Your task to perform on an android device: turn on improve location accuracy Image 0: 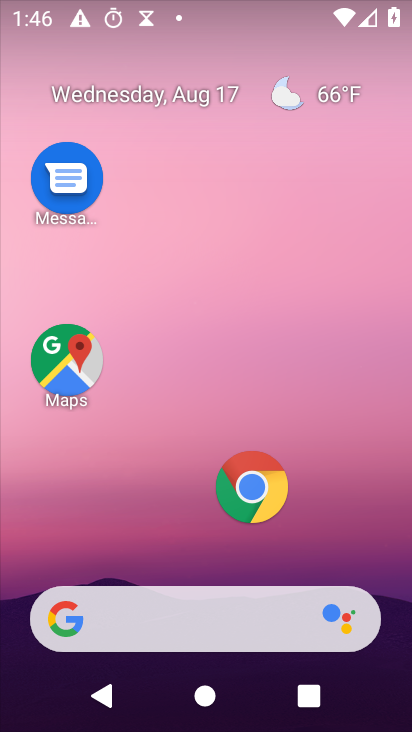
Step 0: press home button
Your task to perform on an android device: turn on improve location accuracy Image 1: 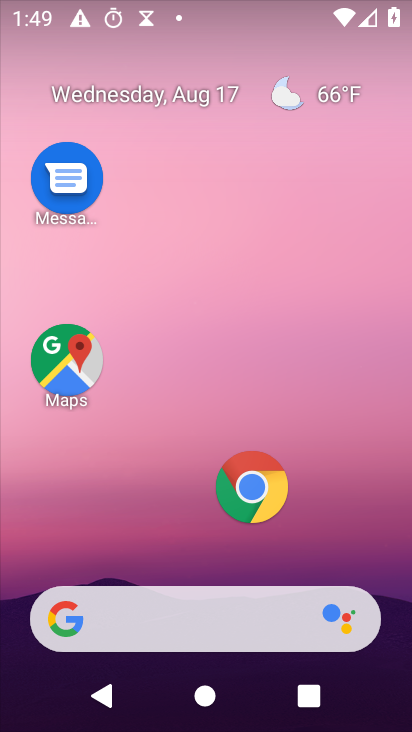
Step 1: drag from (206, 346) to (205, 39)
Your task to perform on an android device: turn on improve location accuracy Image 2: 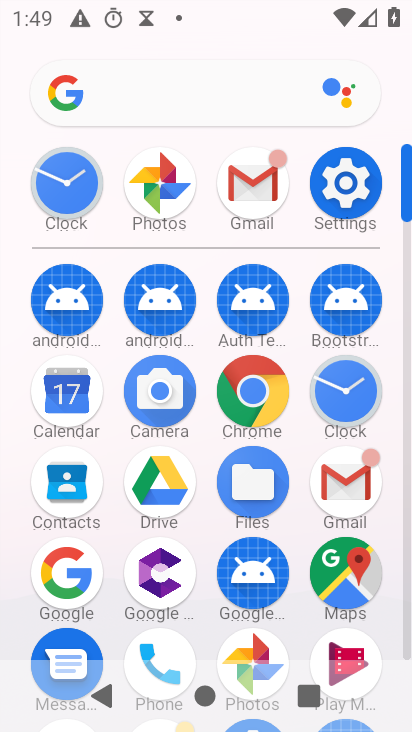
Step 2: click (339, 188)
Your task to perform on an android device: turn on improve location accuracy Image 3: 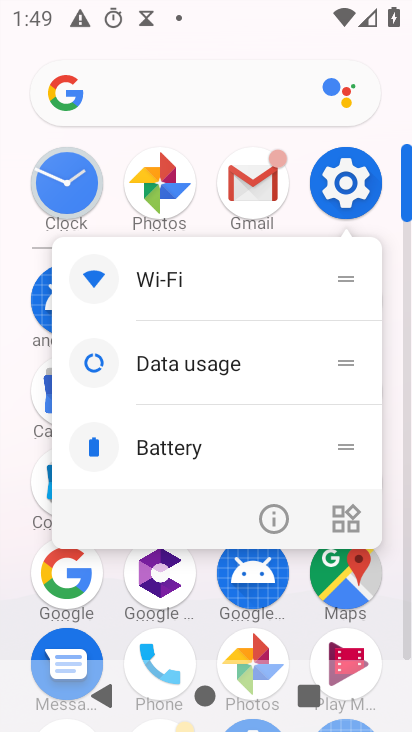
Step 3: click (358, 179)
Your task to perform on an android device: turn on improve location accuracy Image 4: 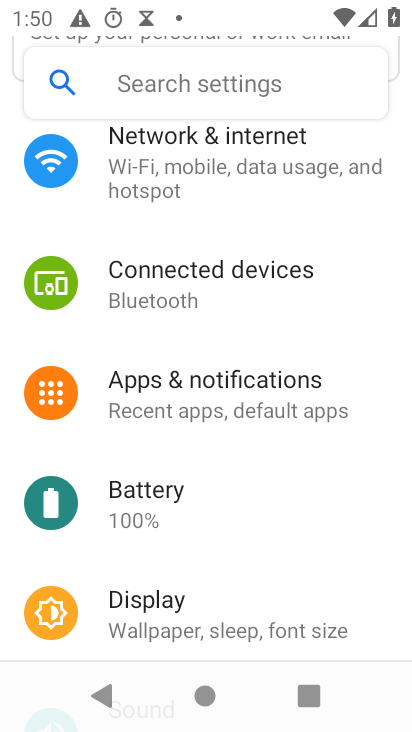
Step 4: drag from (307, 567) to (261, 163)
Your task to perform on an android device: turn on improve location accuracy Image 5: 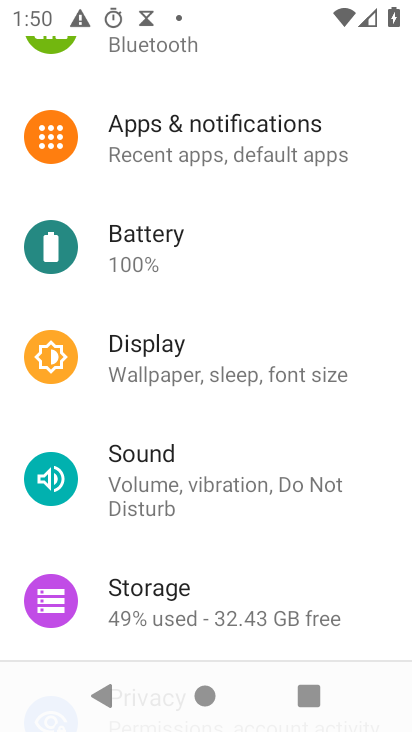
Step 5: drag from (312, 565) to (299, 209)
Your task to perform on an android device: turn on improve location accuracy Image 6: 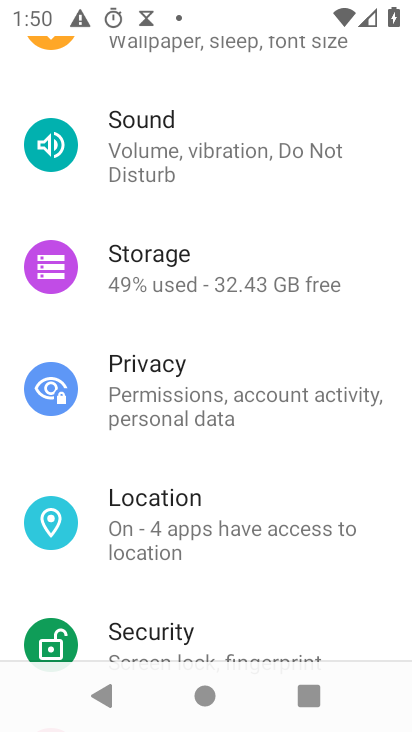
Step 6: click (159, 506)
Your task to perform on an android device: turn on improve location accuracy Image 7: 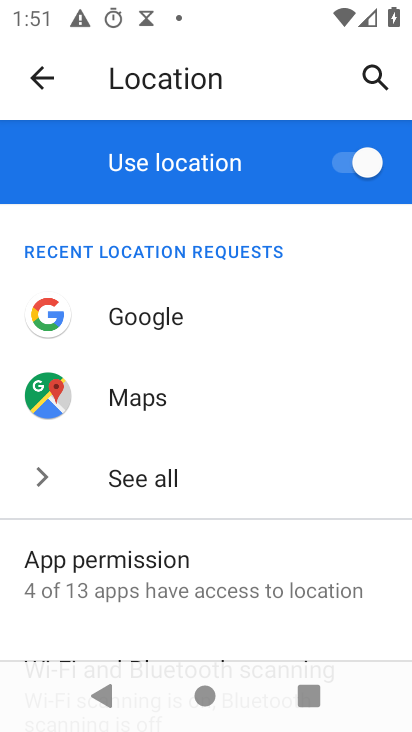
Step 7: drag from (233, 478) to (148, 153)
Your task to perform on an android device: turn on improve location accuracy Image 8: 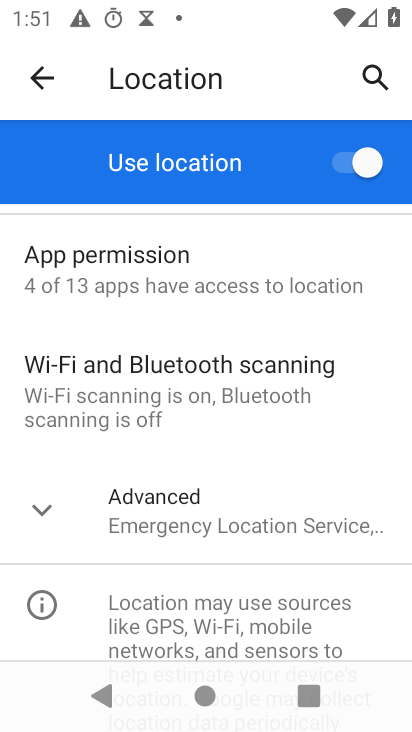
Step 8: click (163, 515)
Your task to perform on an android device: turn on improve location accuracy Image 9: 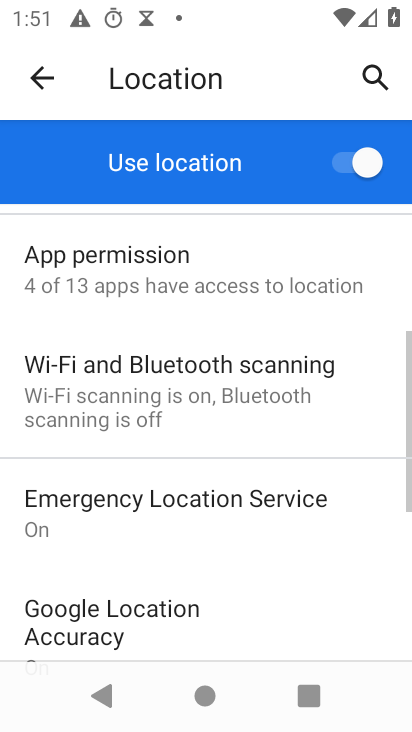
Step 9: drag from (250, 586) to (227, 285)
Your task to perform on an android device: turn on improve location accuracy Image 10: 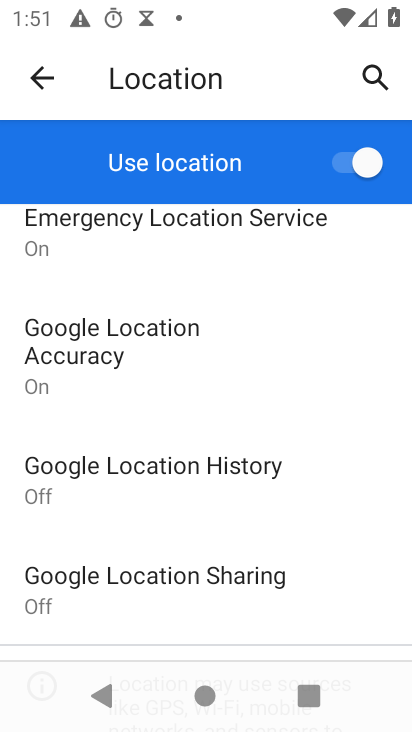
Step 10: click (80, 349)
Your task to perform on an android device: turn on improve location accuracy Image 11: 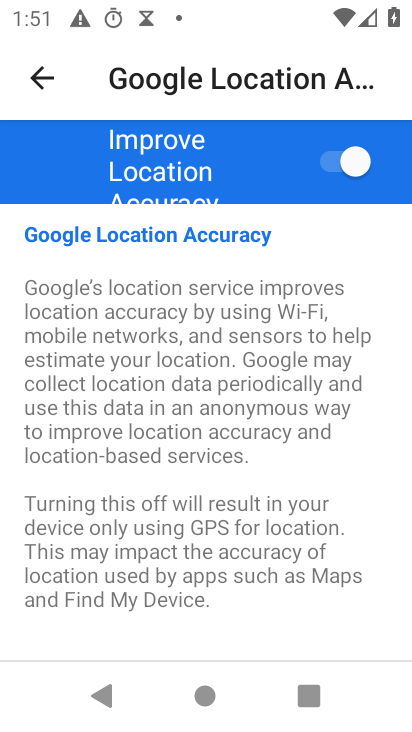
Step 11: task complete